Your task to perform on an android device: allow cookies in the chrome app Image 0: 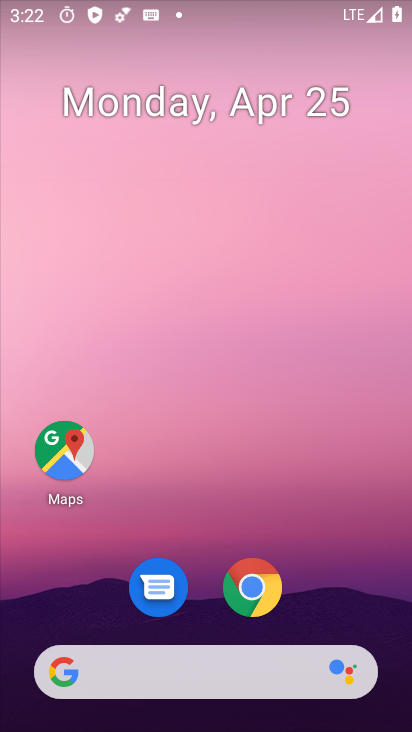
Step 0: click (234, 581)
Your task to perform on an android device: allow cookies in the chrome app Image 1: 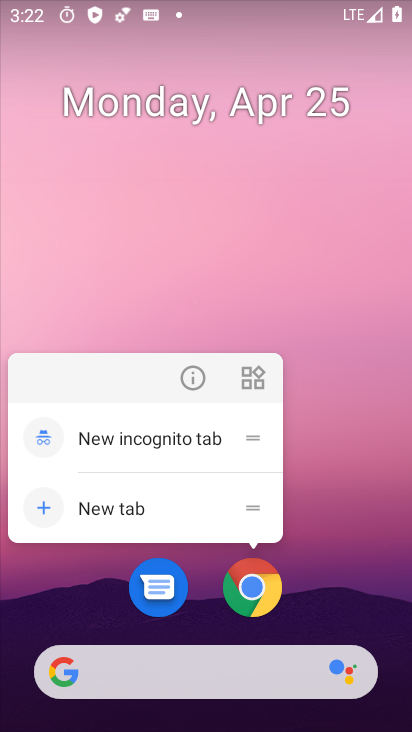
Step 1: click (245, 587)
Your task to perform on an android device: allow cookies in the chrome app Image 2: 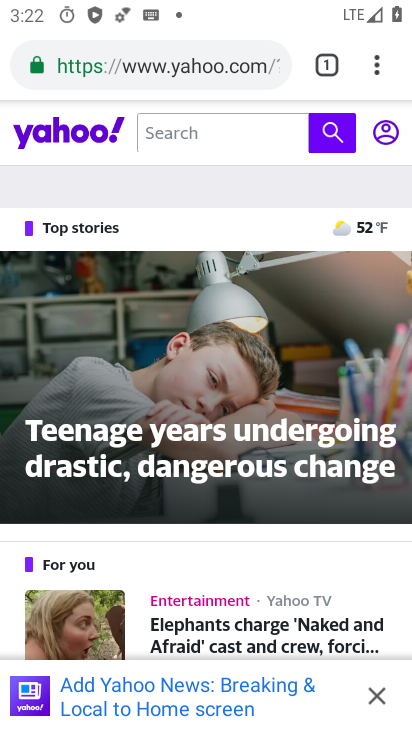
Step 2: drag from (377, 59) to (205, 640)
Your task to perform on an android device: allow cookies in the chrome app Image 3: 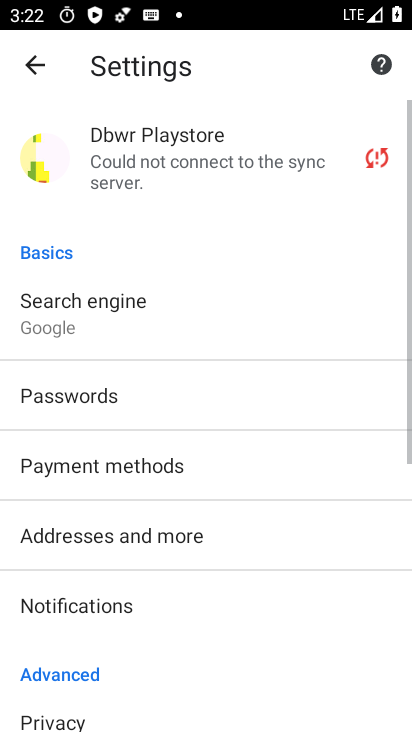
Step 3: drag from (80, 584) to (241, 169)
Your task to perform on an android device: allow cookies in the chrome app Image 4: 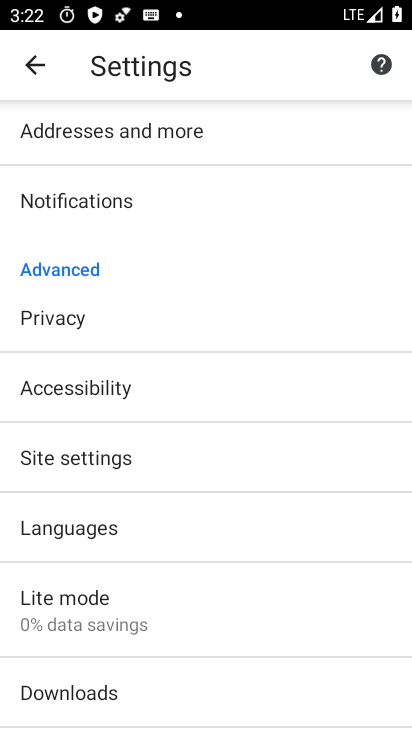
Step 4: drag from (78, 604) to (211, 331)
Your task to perform on an android device: allow cookies in the chrome app Image 5: 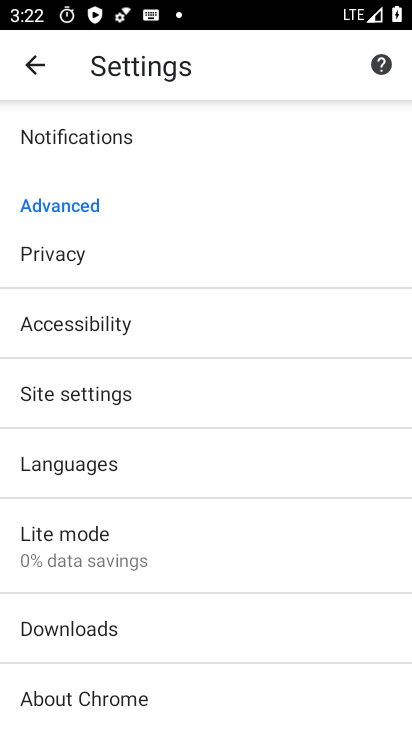
Step 5: click (78, 388)
Your task to perform on an android device: allow cookies in the chrome app Image 6: 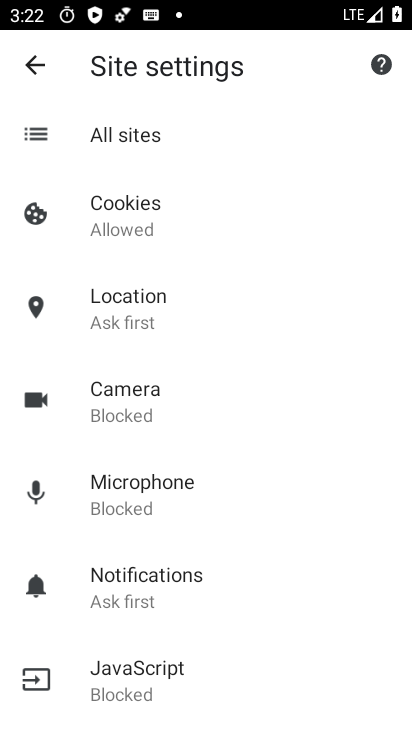
Step 6: click (130, 224)
Your task to perform on an android device: allow cookies in the chrome app Image 7: 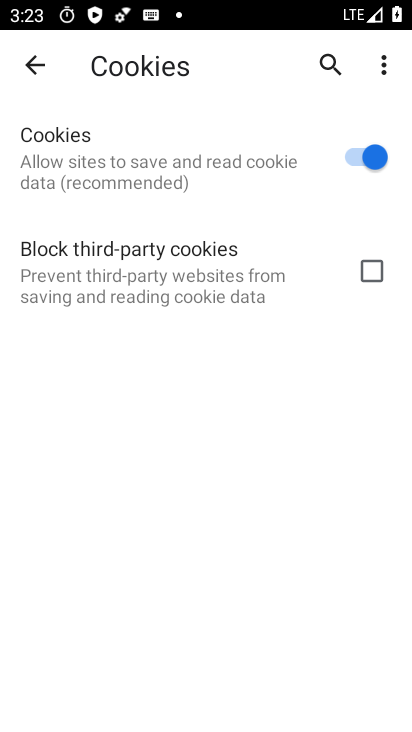
Step 7: task complete